Your task to perform on an android device: turn off javascript in the chrome app Image 0: 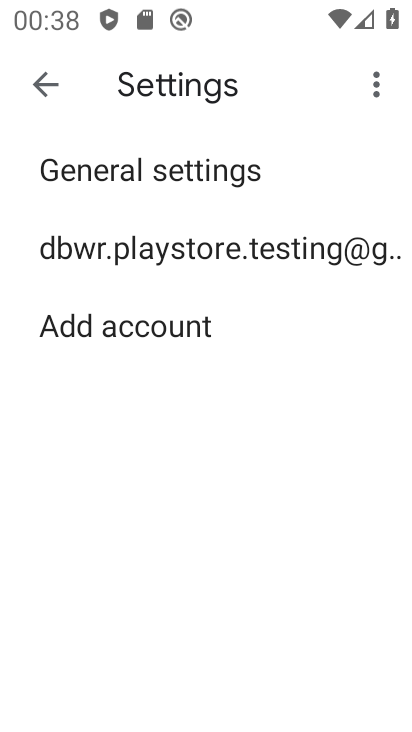
Step 0: press home button
Your task to perform on an android device: turn off javascript in the chrome app Image 1: 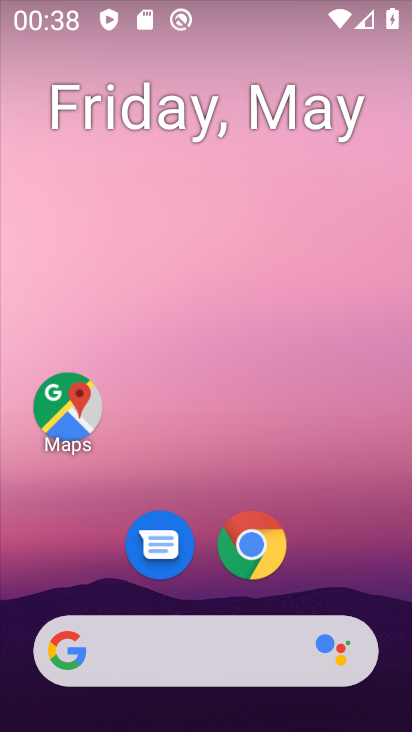
Step 1: click (269, 561)
Your task to perform on an android device: turn off javascript in the chrome app Image 2: 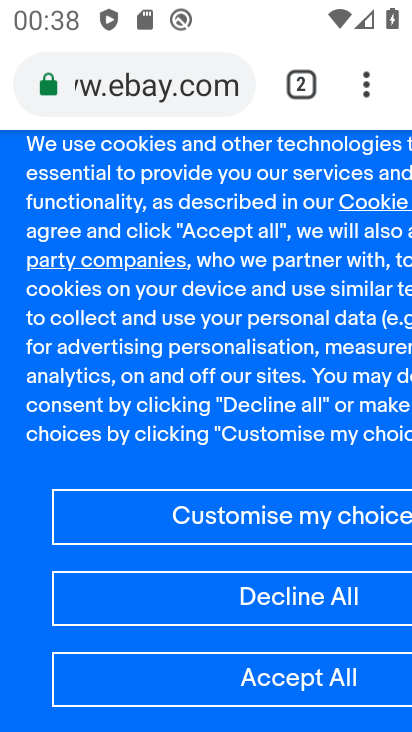
Step 2: click (364, 97)
Your task to perform on an android device: turn off javascript in the chrome app Image 3: 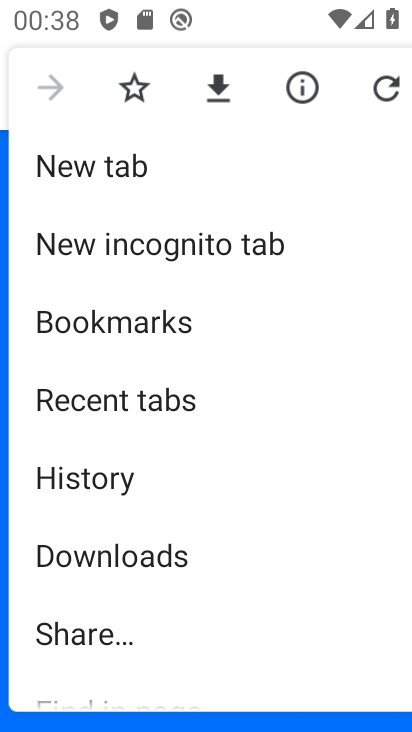
Step 3: drag from (136, 584) to (153, 5)
Your task to perform on an android device: turn off javascript in the chrome app Image 4: 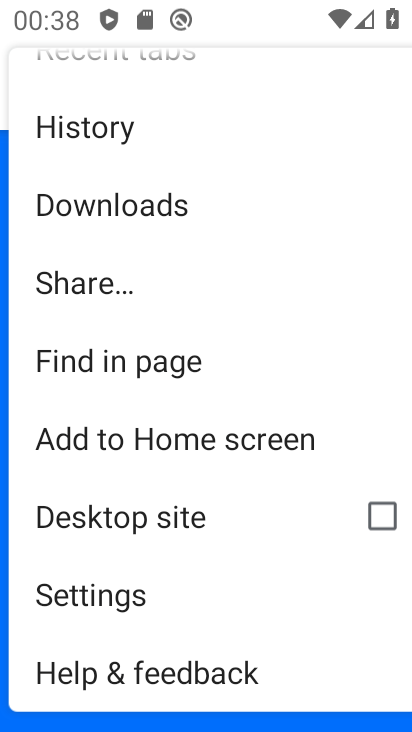
Step 4: click (182, 619)
Your task to perform on an android device: turn off javascript in the chrome app Image 5: 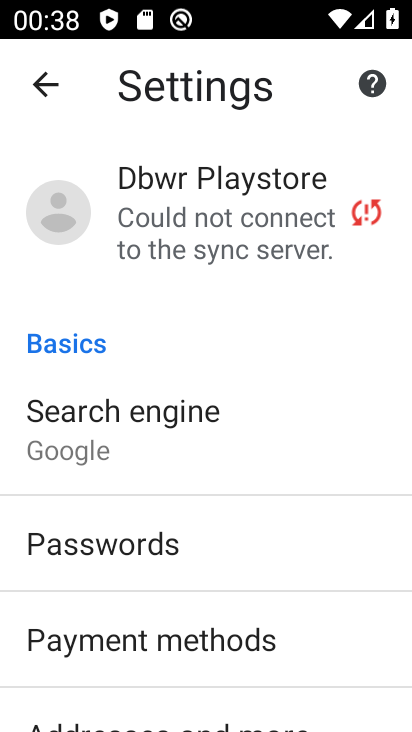
Step 5: click (190, 641)
Your task to perform on an android device: turn off javascript in the chrome app Image 6: 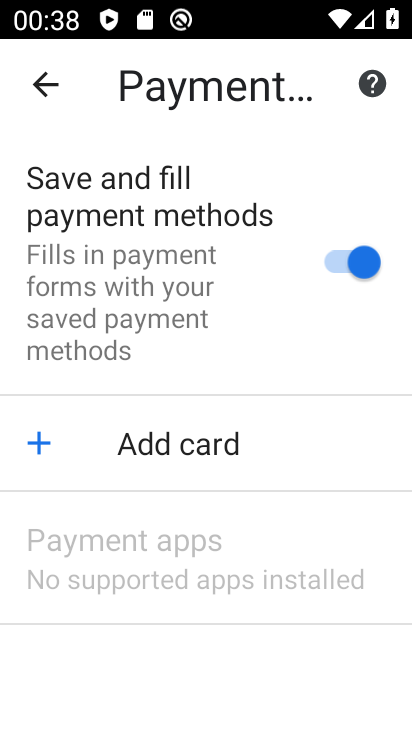
Step 6: click (35, 85)
Your task to perform on an android device: turn off javascript in the chrome app Image 7: 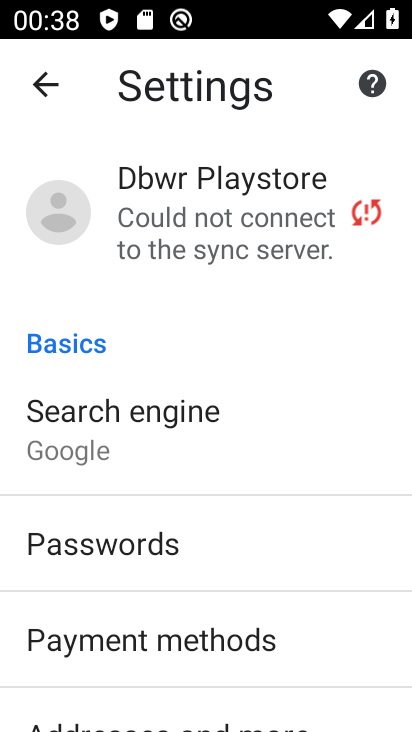
Step 7: drag from (148, 599) to (284, 104)
Your task to perform on an android device: turn off javascript in the chrome app Image 8: 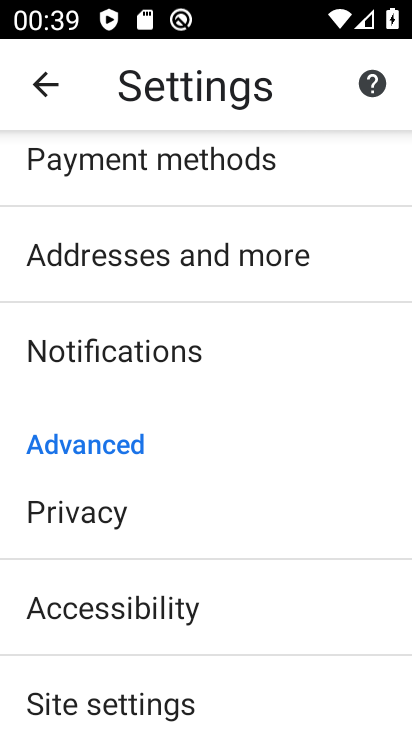
Step 8: click (86, 713)
Your task to perform on an android device: turn off javascript in the chrome app Image 9: 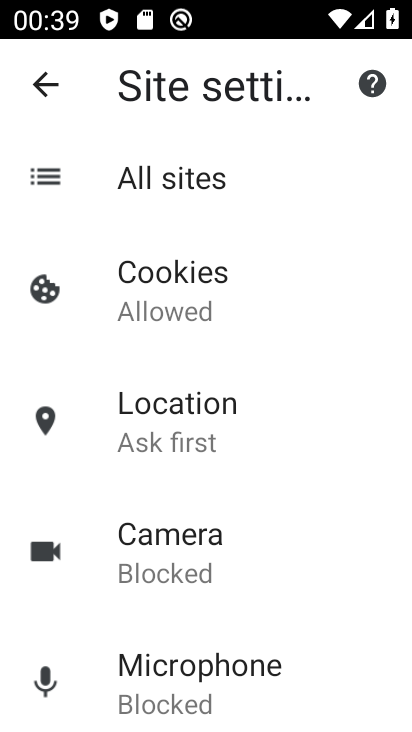
Step 9: drag from (188, 616) to (186, 119)
Your task to perform on an android device: turn off javascript in the chrome app Image 10: 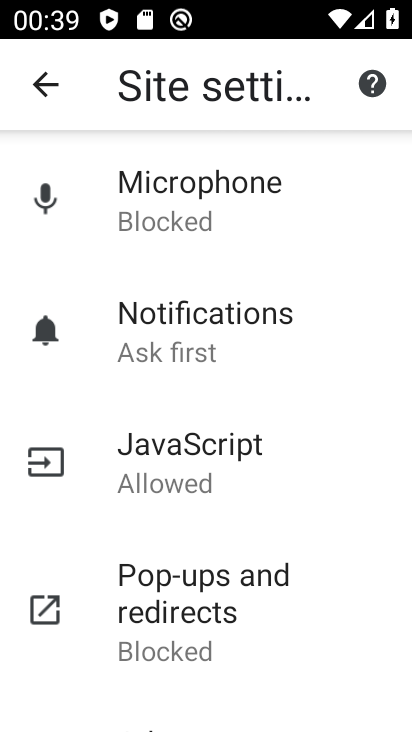
Step 10: click (173, 475)
Your task to perform on an android device: turn off javascript in the chrome app Image 11: 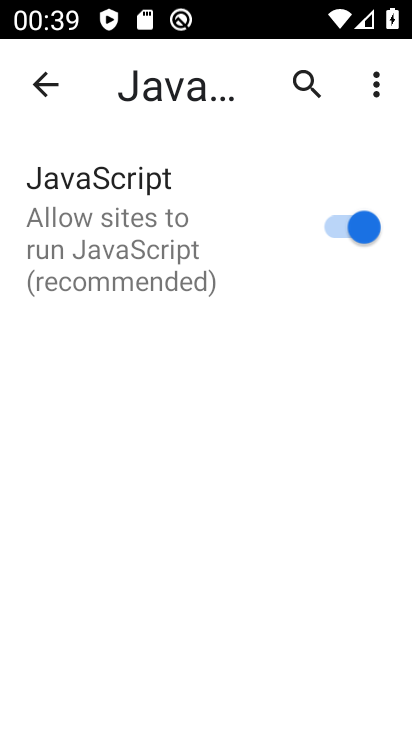
Step 11: click (341, 246)
Your task to perform on an android device: turn off javascript in the chrome app Image 12: 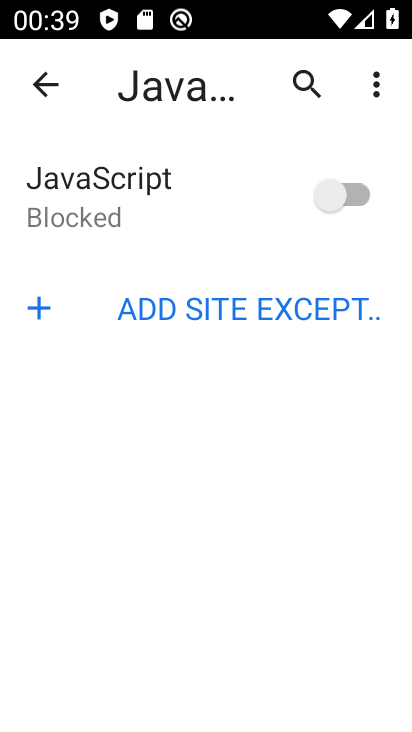
Step 12: task complete